Your task to perform on an android device: Show me productivity apps on the Play Store Image 0: 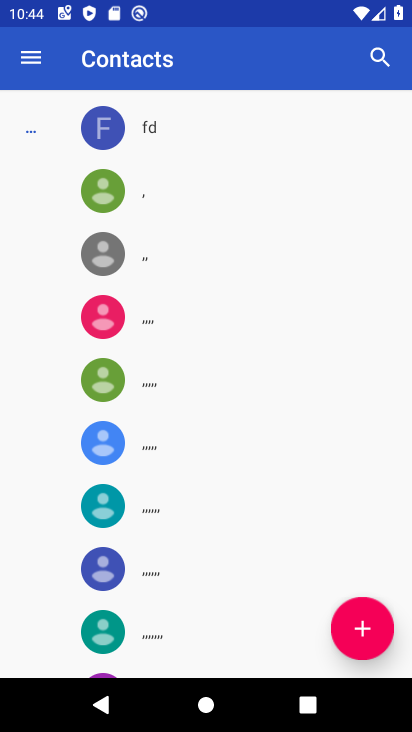
Step 0: drag from (211, 388) to (199, 175)
Your task to perform on an android device: Show me productivity apps on the Play Store Image 1: 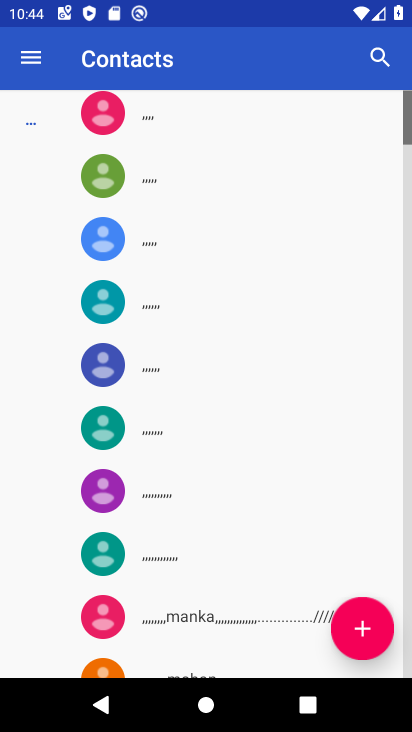
Step 1: press home button
Your task to perform on an android device: Show me productivity apps on the Play Store Image 2: 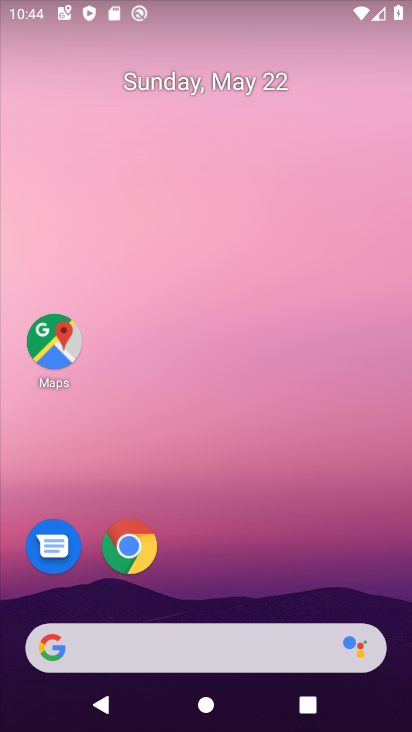
Step 2: drag from (181, 599) to (230, 9)
Your task to perform on an android device: Show me productivity apps on the Play Store Image 3: 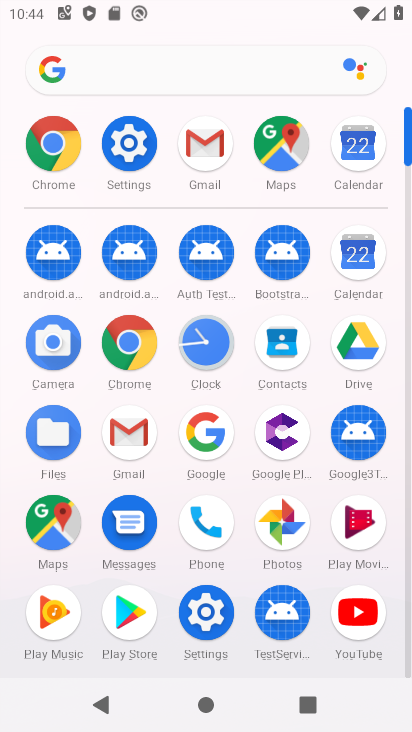
Step 3: click (133, 638)
Your task to perform on an android device: Show me productivity apps on the Play Store Image 4: 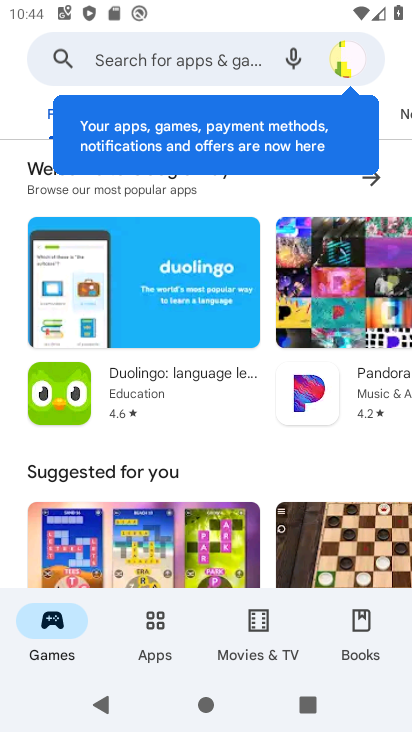
Step 4: click (156, 635)
Your task to perform on an android device: Show me productivity apps on the Play Store Image 5: 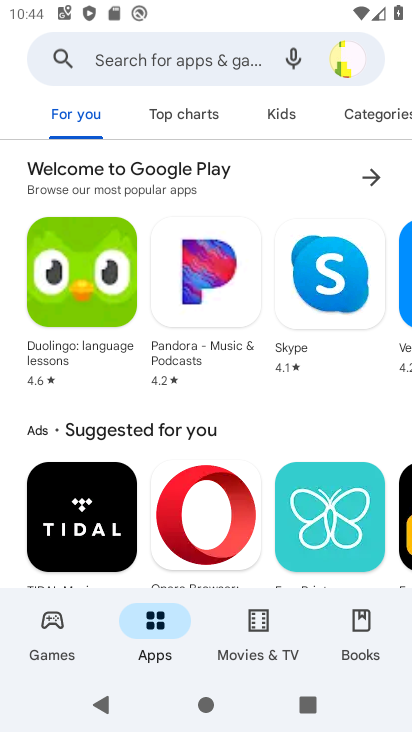
Step 5: click (378, 113)
Your task to perform on an android device: Show me productivity apps on the Play Store Image 6: 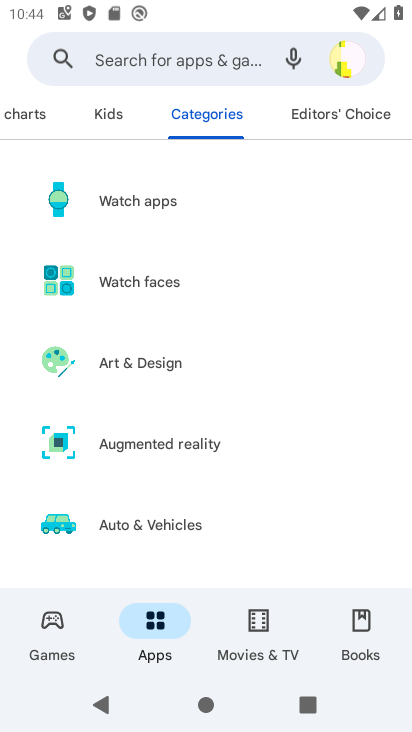
Step 6: drag from (154, 503) to (184, 2)
Your task to perform on an android device: Show me productivity apps on the Play Store Image 7: 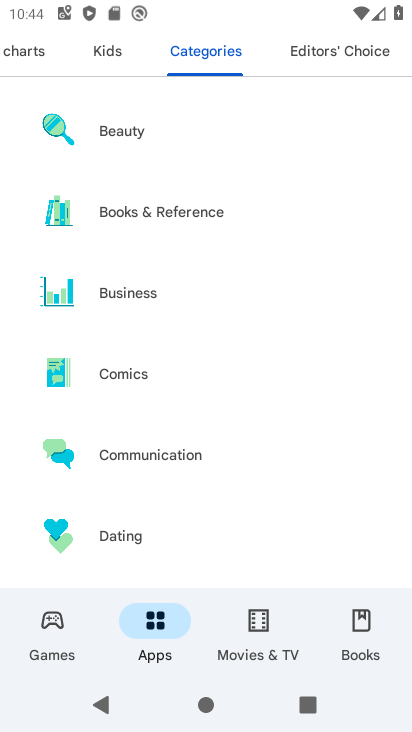
Step 7: drag from (114, 533) to (187, 0)
Your task to perform on an android device: Show me productivity apps on the Play Store Image 8: 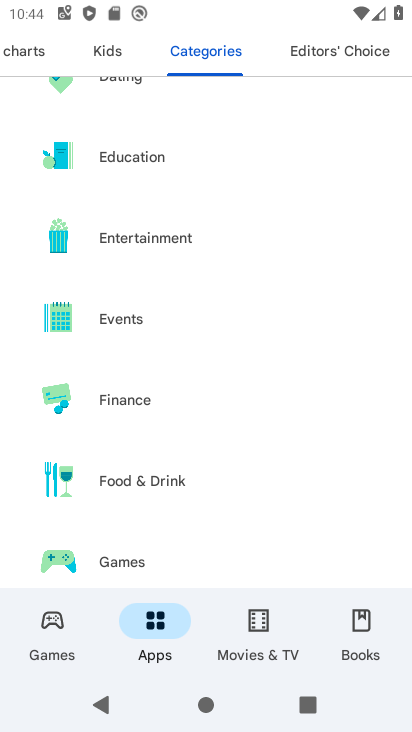
Step 8: drag from (147, 459) to (155, 5)
Your task to perform on an android device: Show me productivity apps on the Play Store Image 9: 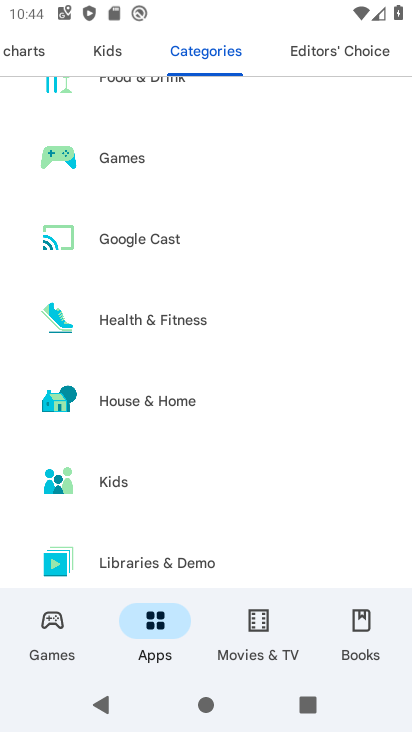
Step 9: drag from (110, 451) to (176, 1)
Your task to perform on an android device: Show me productivity apps on the Play Store Image 10: 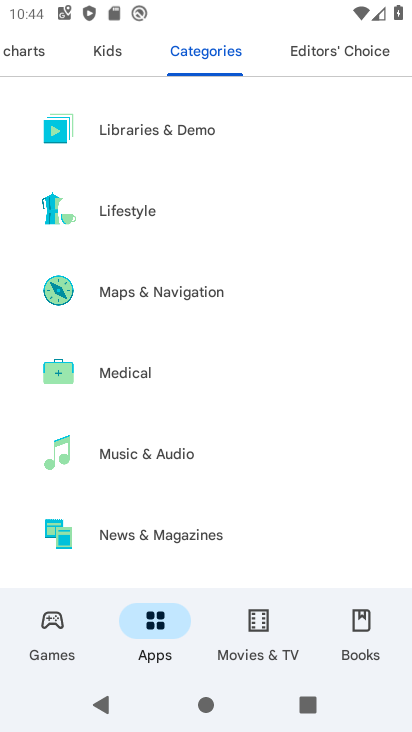
Step 10: drag from (156, 533) to (178, 40)
Your task to perform on an android device: Show me productivity apps on the Play Store Image 11: 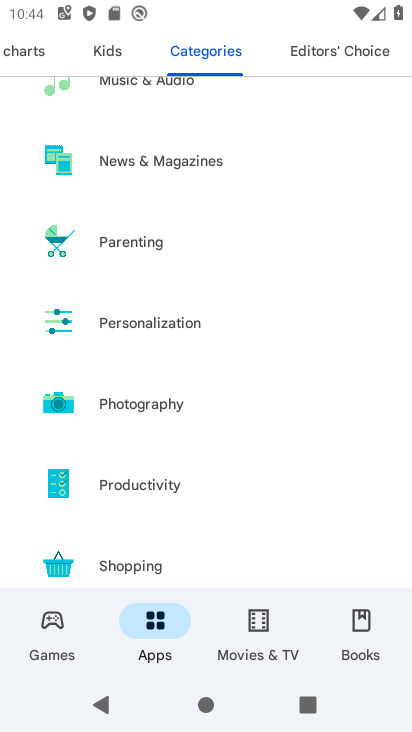
Step 11: click (150, 484)
Your task to perform on an android device: Show me productivity apps on the Play Store Image 12: 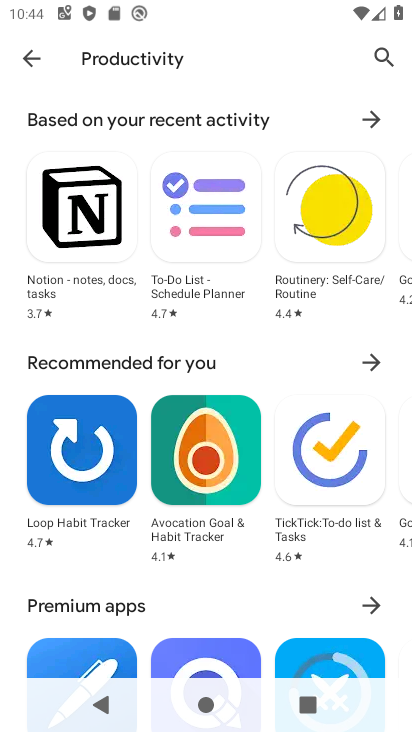
Step 12: task complete